Your task to perform on an android device: Open the web browser Image 0: 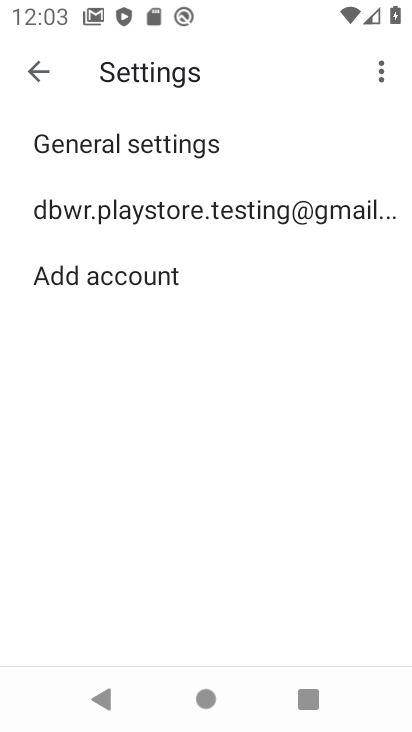
Step 0: press home button
Your task to perform on an android device: Open the web browser Image 1: 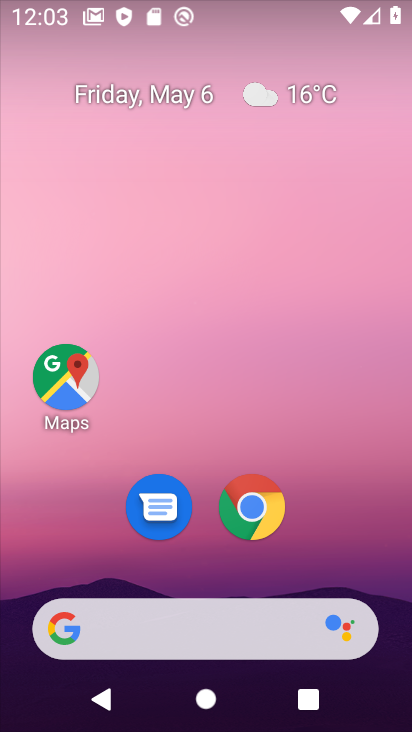
Step 1: drag from (219, 713) to (213, 230)
Your task to perform on an android device: Open the web browser Image 2: 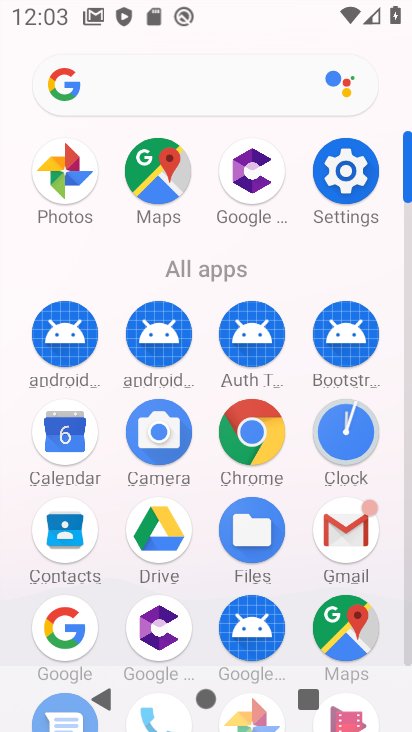
Step 2: click (258, 429)
Your task to perform on an android device: Open the web browser Image 3: 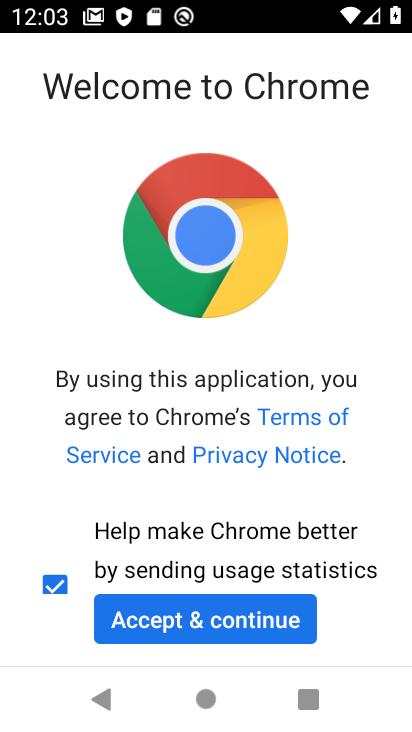
Step 3: click (219, 618)
Your task to perform on an android device: Open the web browser Image 4: 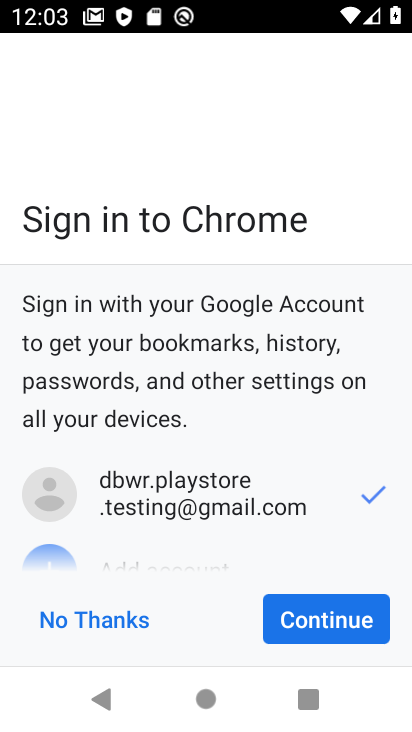
Step 4: click (299, 620)
Your task to perform on an android device: Open the web browser Image 5: 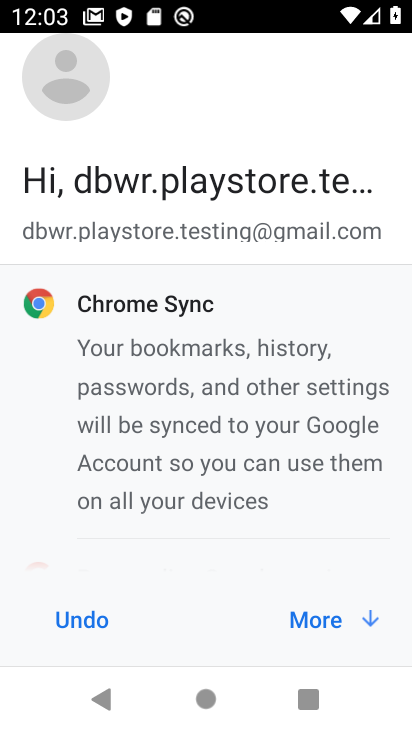
Step 5: click (307, 617)
Your task to perform on an android device: Open the web browser Image 6: 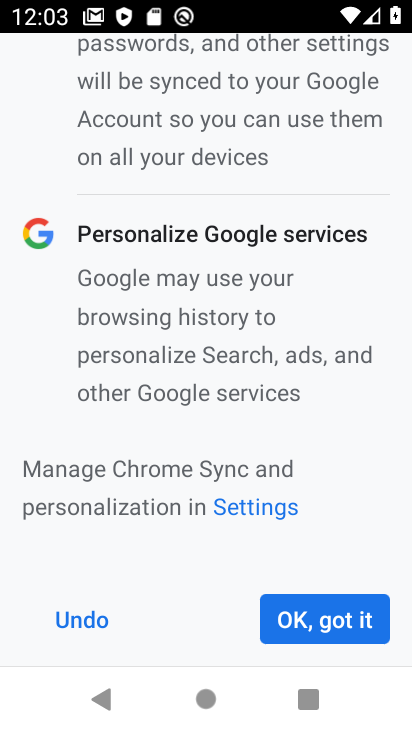
Step 6: click (323, 609)
Your task to perform on an android device: Open the web browser Image 7: 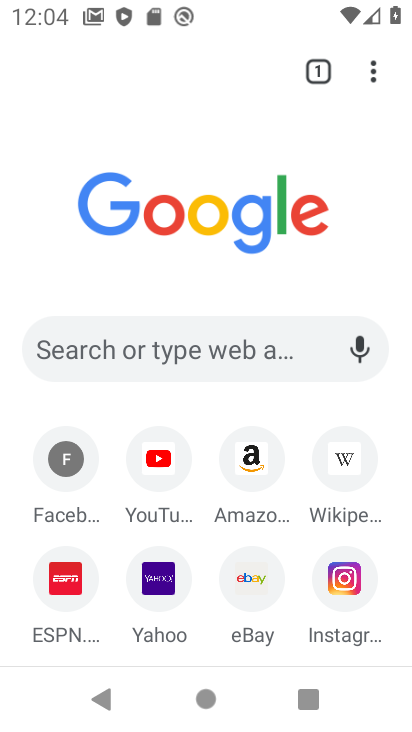
Step 7: task complete